Your task to perform on an android device: turn on translation in the chrome app Image 0: 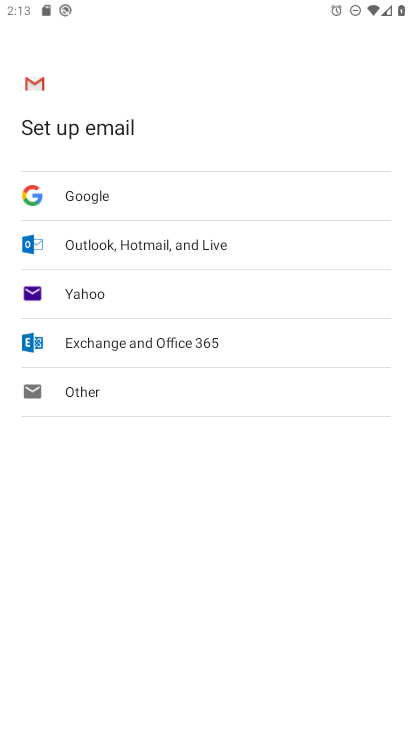
Step 0: press home button
Your task to perform on an android device: turn on translation in the chrome app Image 1: 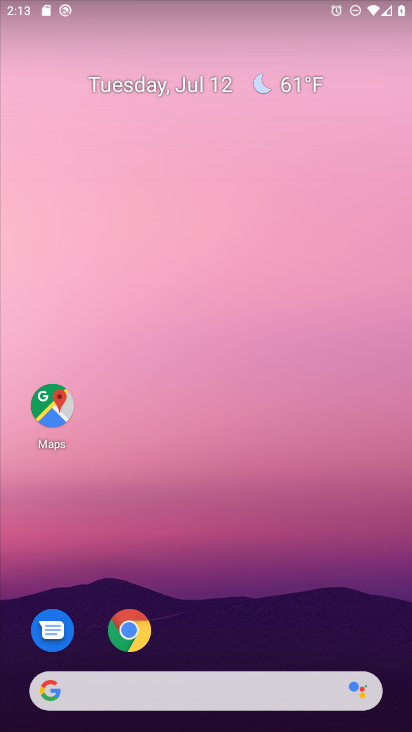
Step 1: click (145, 629)
Your task to perform on an android device: turn on translation in the chrome app Image 2: 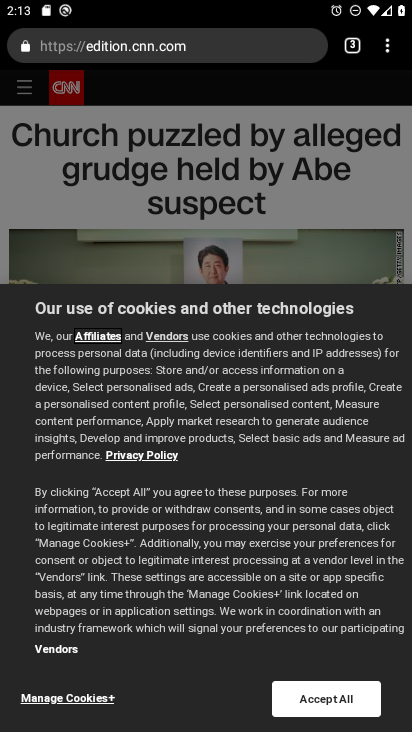
Step 2: click (358, 697)
Your task to perform on an android device: turn on translation in the chrome app Image 3: 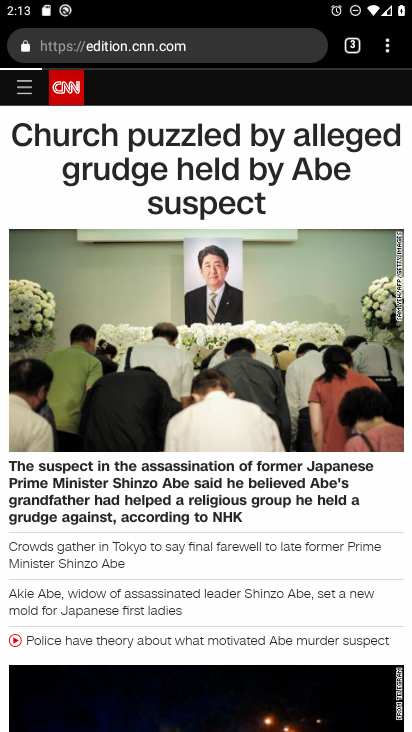
Step 3: click (389, 46)
Your task to perform on an android device: turn on translation in the chrome app Image 4: 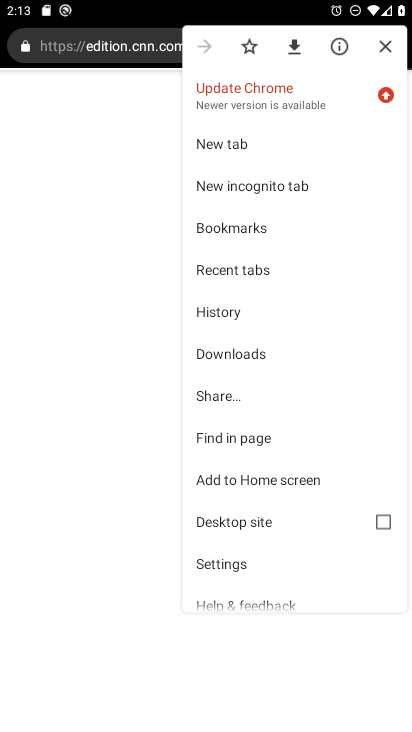
Step 4: click (249, 561)
Your task to perform on an android device: turn on translation in the chrome app Image 5: 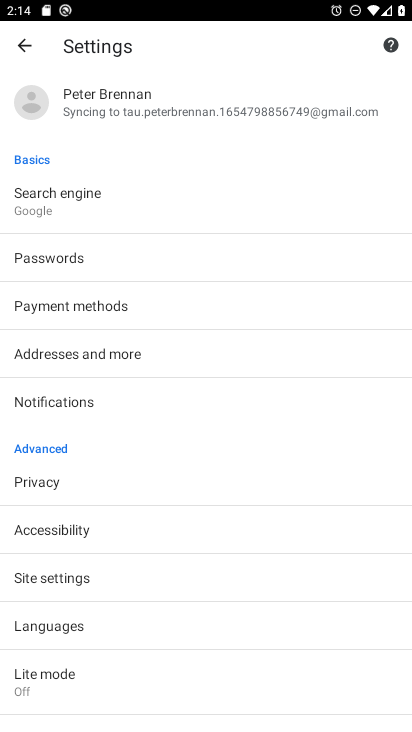
Step 5: click (82, 634)
Your task to perform on an android device: turn on translation in the chrome app Image 6: 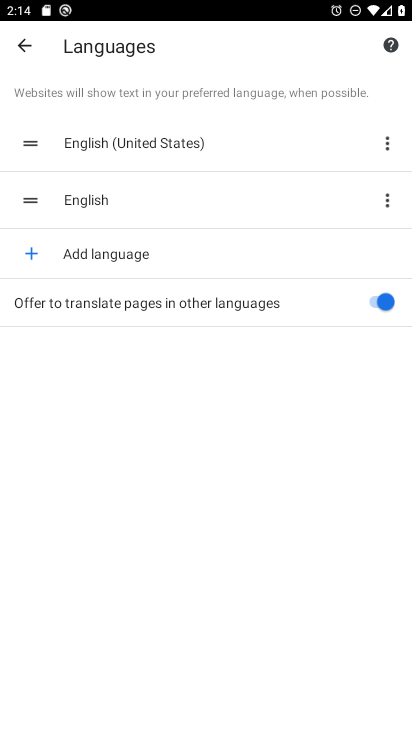
Step 6: task complete